Your task to perform on an android device: turn off notifications settings in the gmail app Image 0: 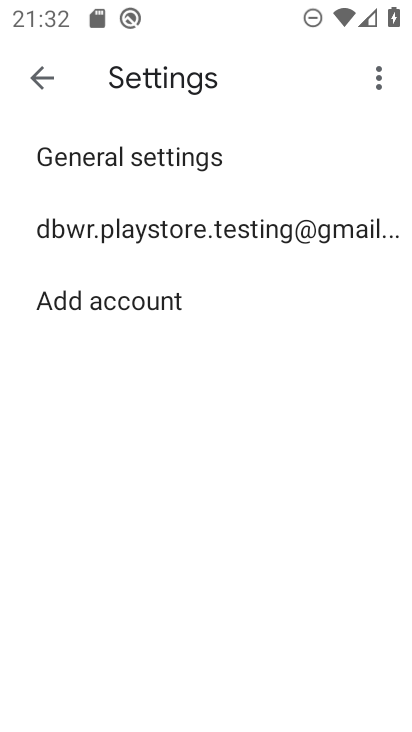
Step 0: press home button
Your task to perform on an android device: turn off notifications settings in the gmail app Image 1: 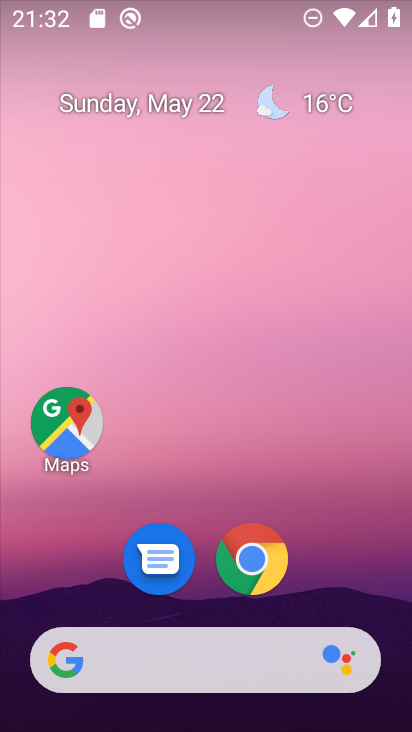
Step 1: drag from (229, 693) to (240, 115)
Your task to perform on an android device: turn off notifications settings in the gmail app Image 2: 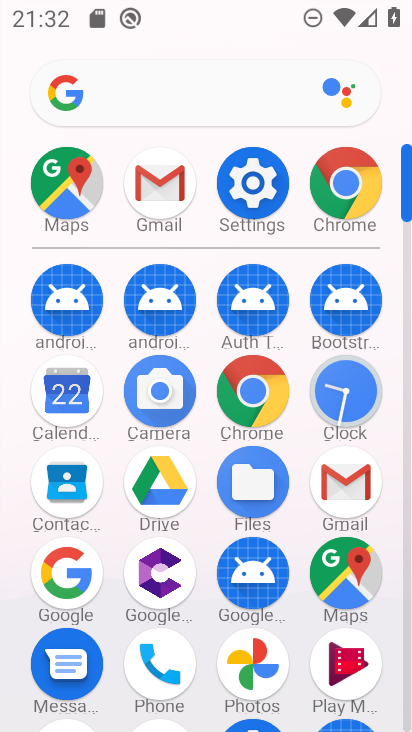
Step 2: click (343, 483)
Your task to perform on an android device: turn off notifications settings in the gmail app Image 3: 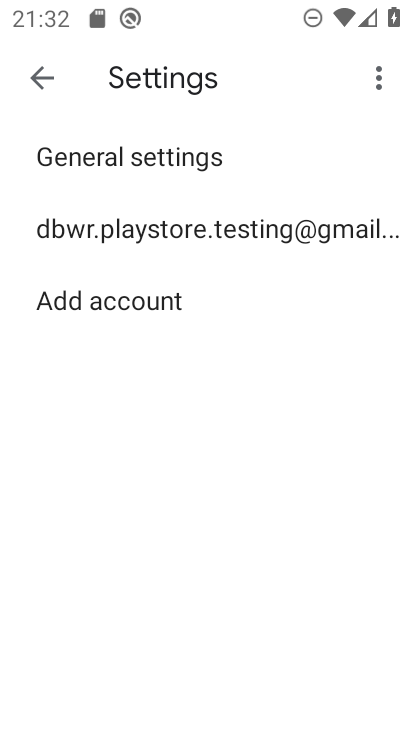
Step 3: click (227, 234)
Your task to perform on an android device: turn off notifications settings in the gmail app Image 4: 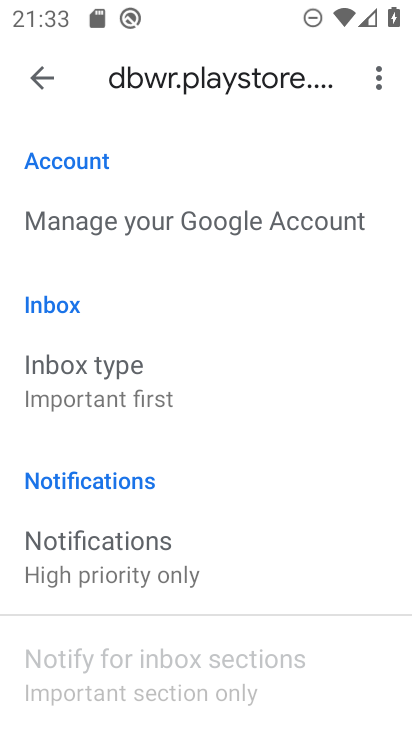
Step 4: click (137, 573)
Your task to perform on an android device: turn off notifications settings in the gmail app Image 5: 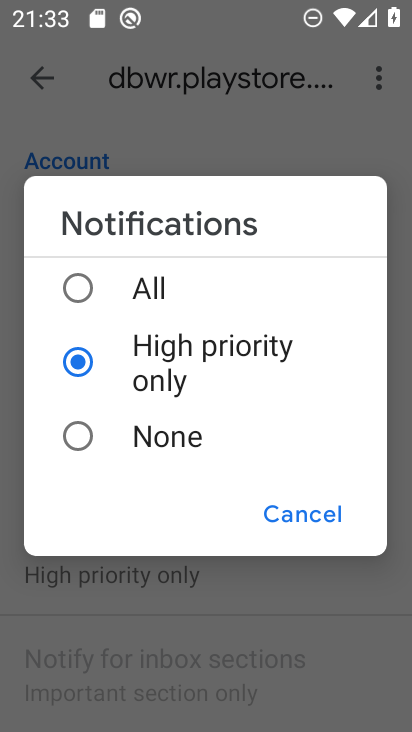
Step 5: click (167, 447)
Your task to perform on an android device: turn off notifications settings in the gmail app Image 6: 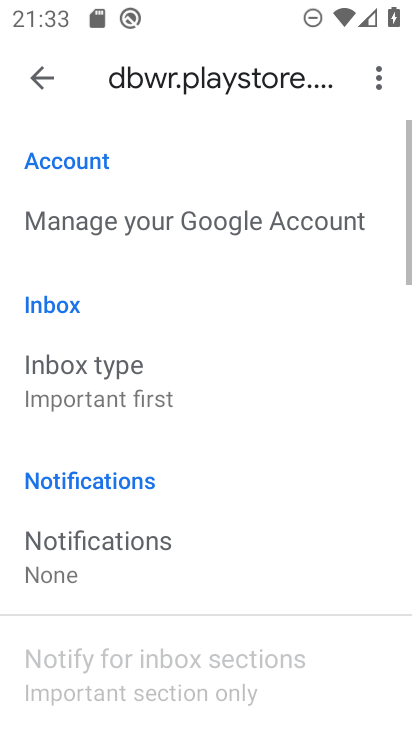
Step 6: task complete